Your task to perform on an android device: Toggle the flashlight Image 0: 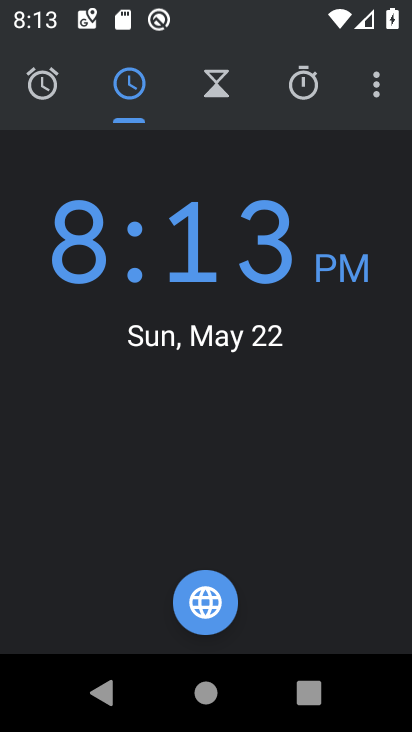
Step 0: press home button
Your task to perform on an android device: Toggle the flashlight Image 1: 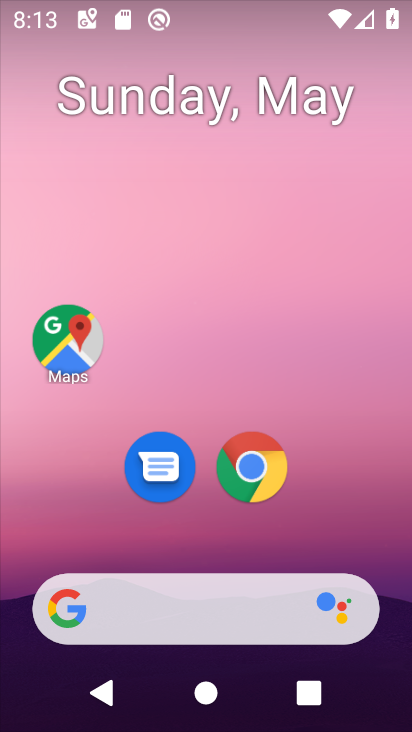
Step 1: drag from (352, 507) to (327, 77)
Your task to perform on an android device: Toggle the flashlight Image 2: 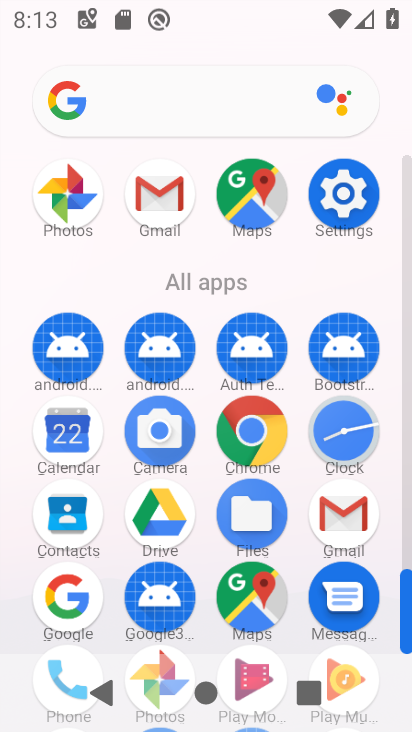
Step 2: click (333, 212)
Your task to perform on an android device: Toggle the flashlight Image 3: 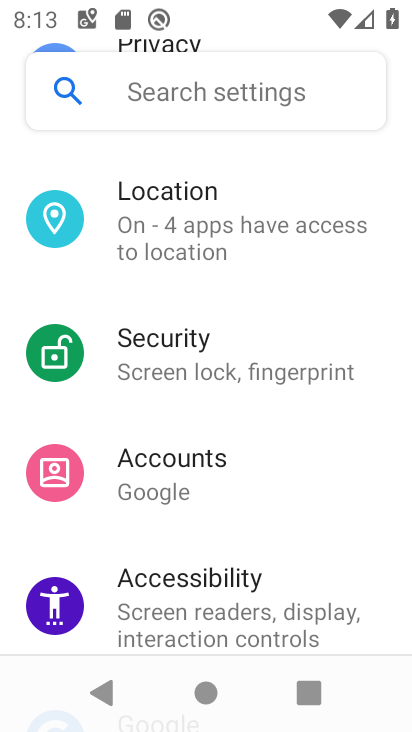
Step 3: click (221, 105)
Your task to perform on an android device: Toggle the flashlight Image 4: 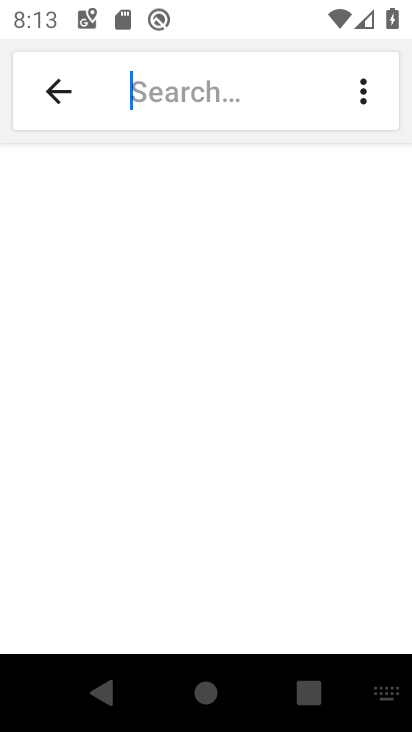
Step 4: type "flashlight"
Your task to perform on an android device: Toggle the flashlight Image 5: 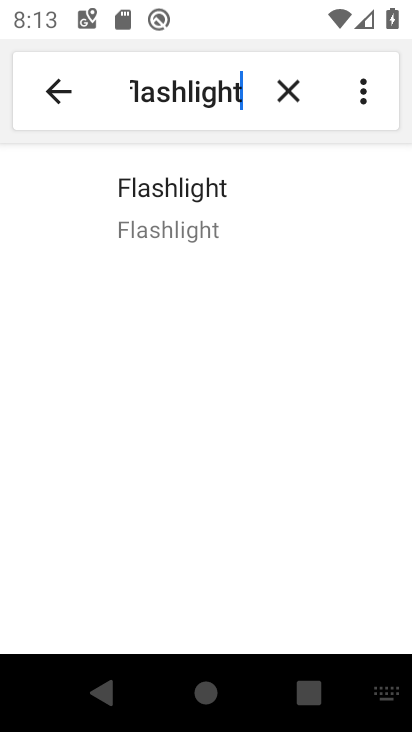
Step 5: click (197, 221)
Your task to perform on an android device: Toggle the flashlight Image 6: 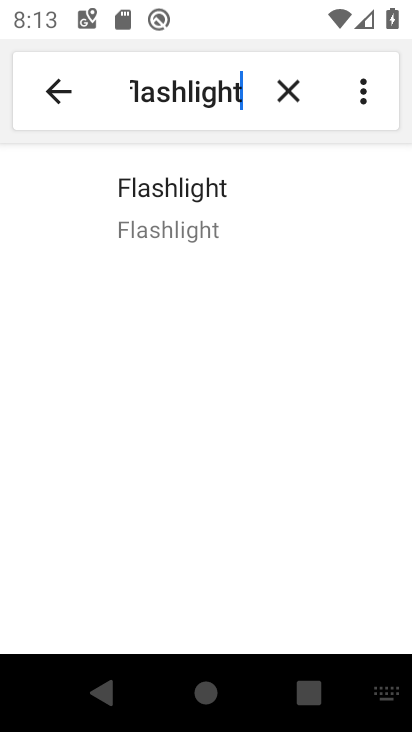
Step 6: task complete